Your task to perform on an android device: Search for Italian restaurants on Maps Image 0: 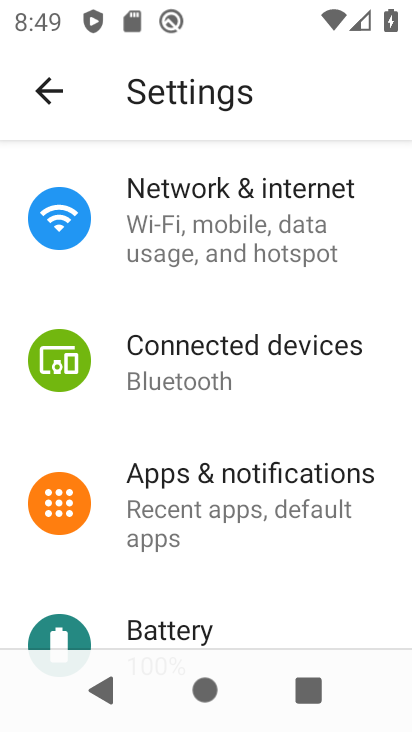
Step 0: press home button
Your task to perform on an android device: Search for Italian restaurants on Maps Image 1: 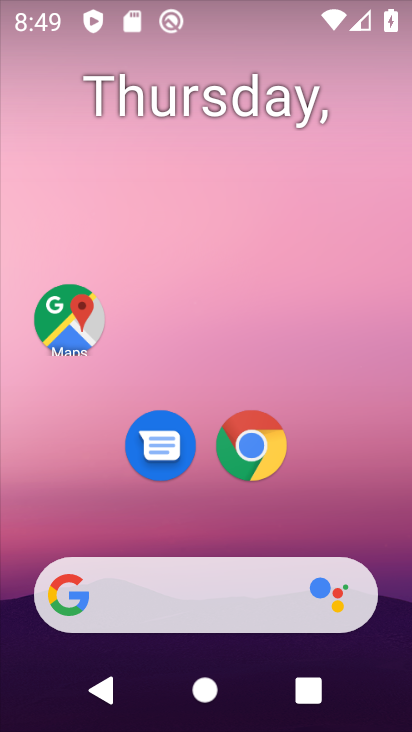
Step 1: click (75, 305)
Your task to perform on an android device: Search for Italian restaurants on Maps Image 2: 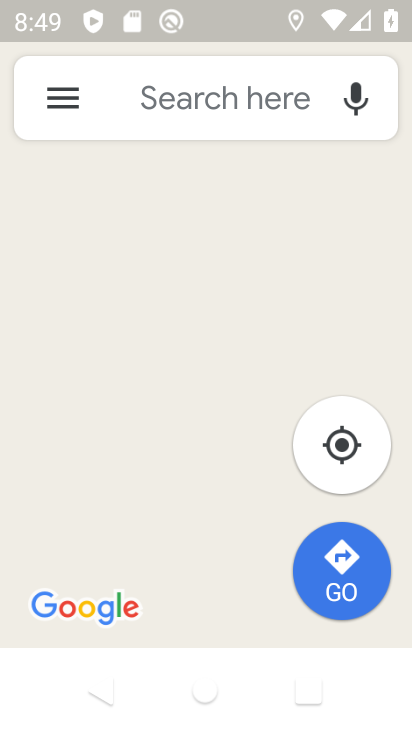
Step 2: click (218, 107)
Your task to perform on an android device: Search for Italian restaurants on Maps Image 3: 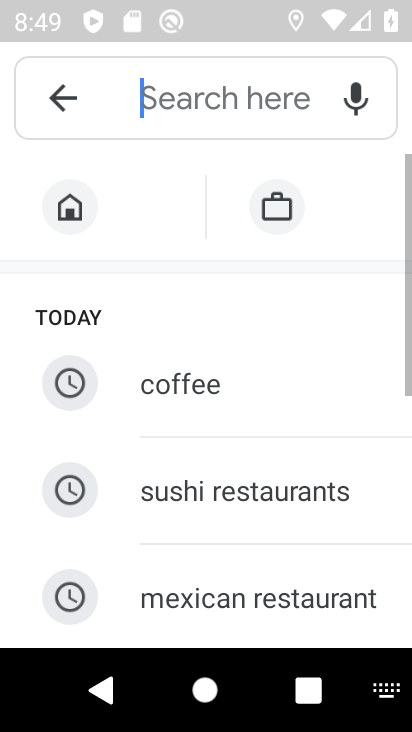
Step 3: type "iitalian restaurants"
Your task to perform on an android device: Search for Italian restaurants on Maps Image 4: 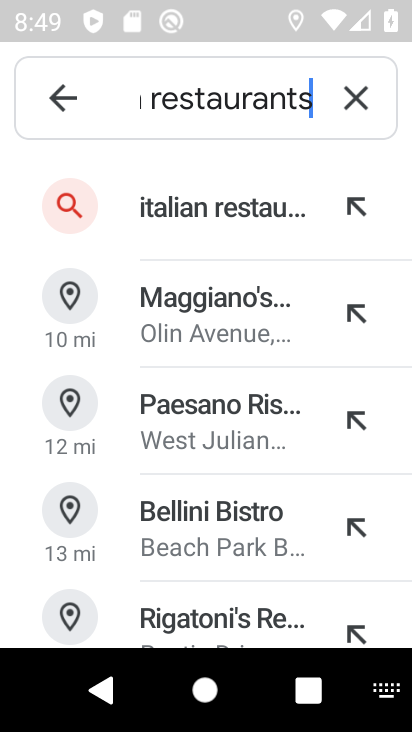
Step 4: click (218, 205)
Your task to perform on an android device: Search for Italian restaurants on Maps Image 5: 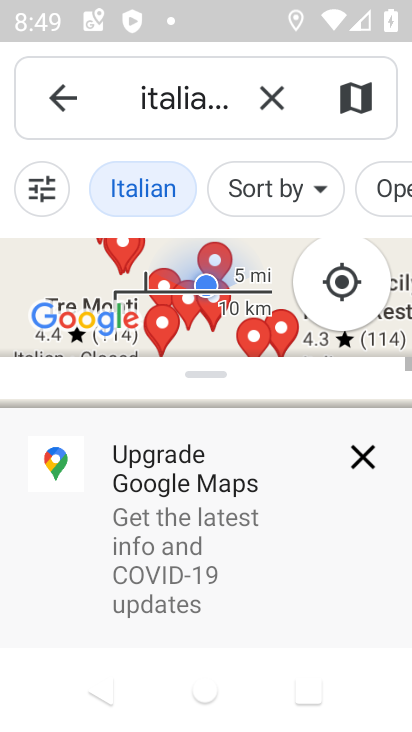
Step 5: task complete